Your task to perform on an android device: Open settings Image 0: 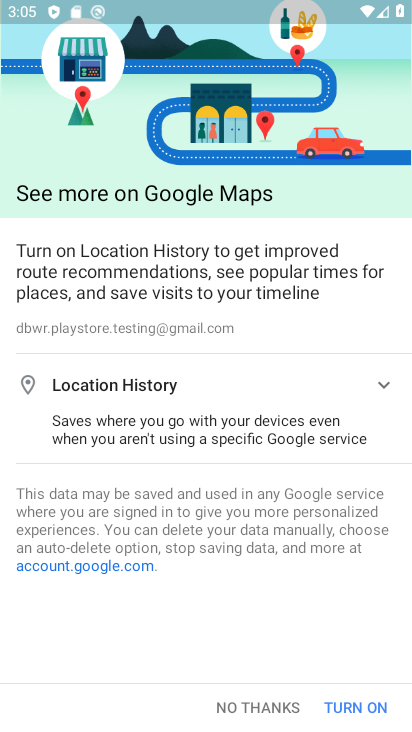
Step 0: press home button
Your task to perform on an android device: Open settings Image 1: 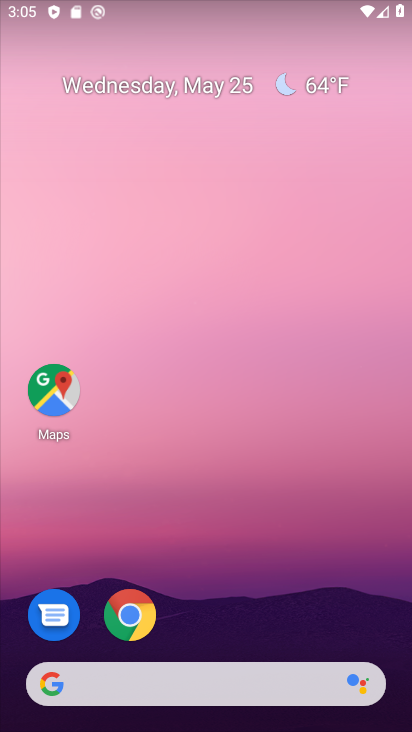
Step 1: drag from (320, 607) to (321, 4)
Your task to perform on an android device: Open settings Image 2: 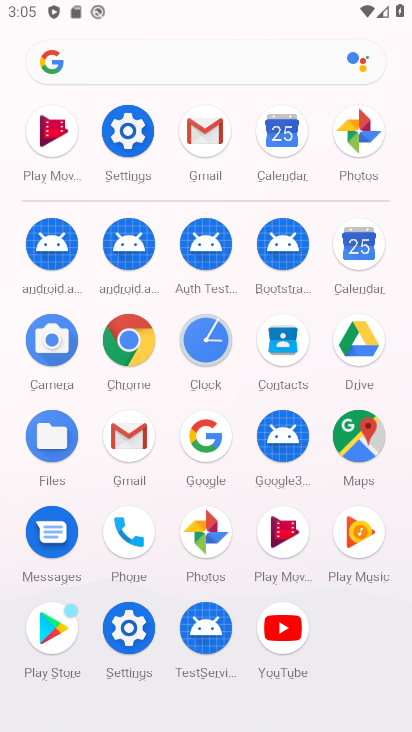
Step 2: click (117, 131)
Your task to perform on an android device: Open settings Image 3: 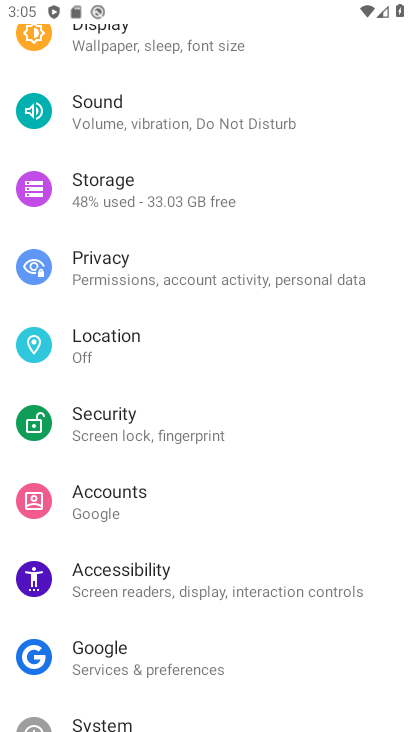
Step 3: task complete